Your task to perform on an android device: Add "bose soundsport free" to the cart on bestbuy.com Image 0: 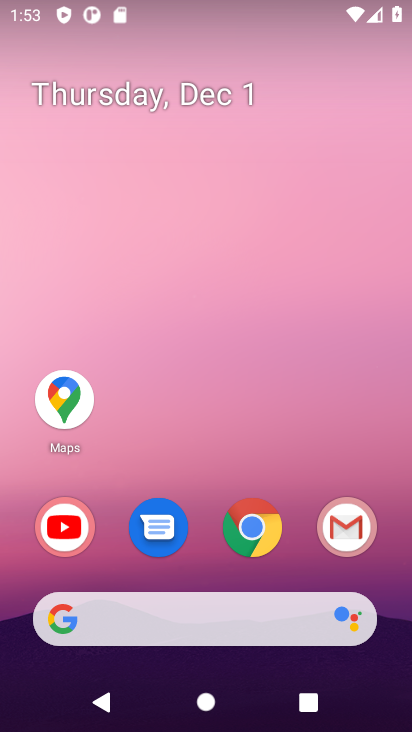
Step 0: click (257, 531)
Your task to perform on an android device: Add "bose soundsport free" to the cart on bestbuy.com Image 1: 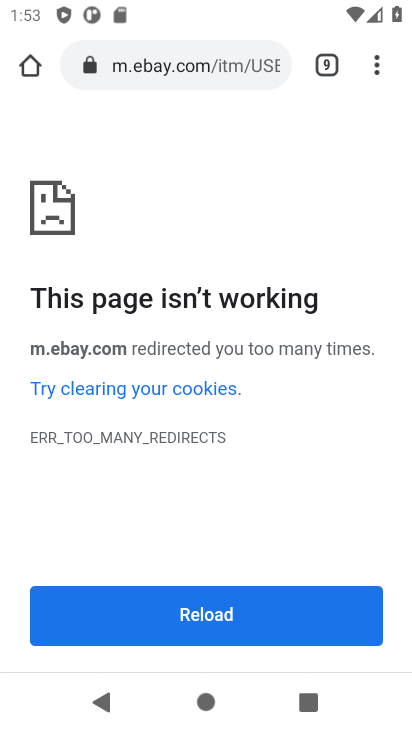
Step 1: click (189, 66)
Your task to perform on an android device: Add "bose soundsport free" to the cart on bestbuy.com Image 2: 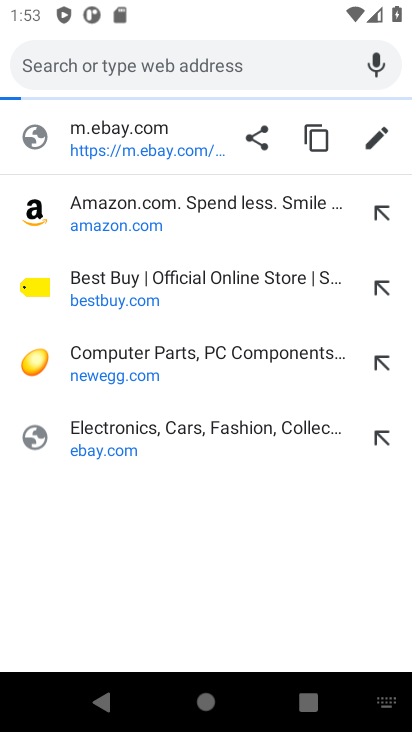
Step 2: click (119, 301)
Your task to perform on an android device: Add "bose soundsport free" to the cart on bestbuy.com Image 3: 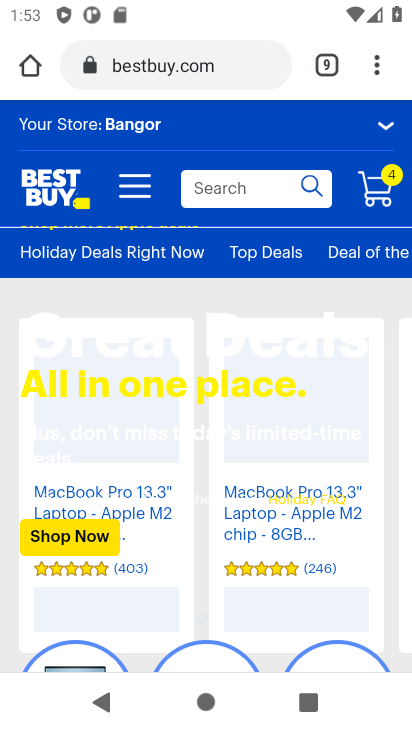
Step 3: click (228, 174)
Your task to perform on an android device: Add "bose soundsport free" to the cart on bestbuy.com Image 4: 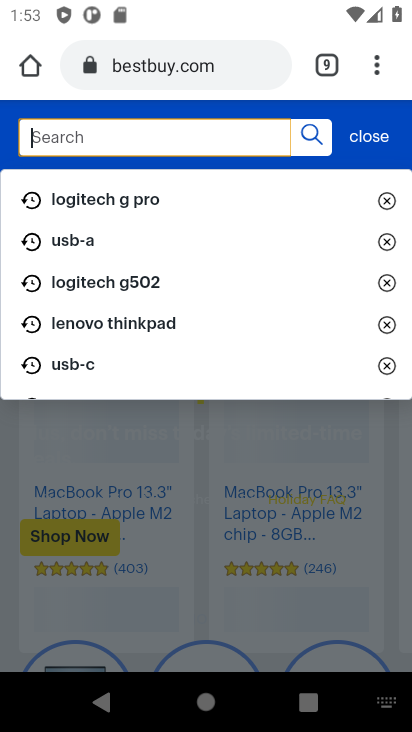
Step 4: type "bose soundsport free"
Your task to perform on an android device: Add "bose soundsport free" to the cart on bestbuy.com Image 5: 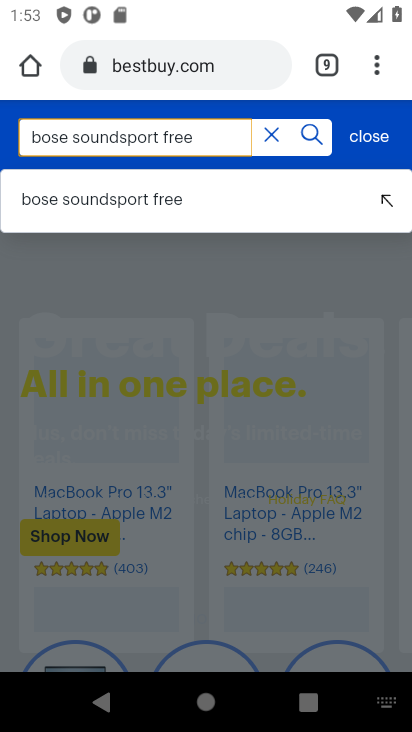
Step 5: click (122, 207)
Your task to perform on an android device: Add "bose soundsport free" to the cart on bestbuy.com Image 6: 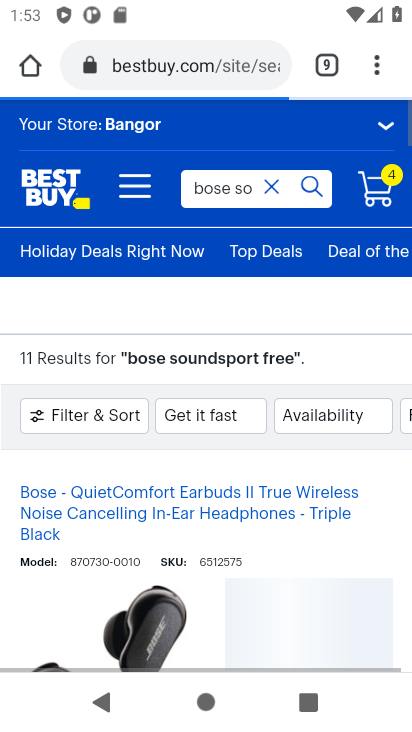
Step 6: task complete